Your task to perform on an android device: Go to network settings Image 0: 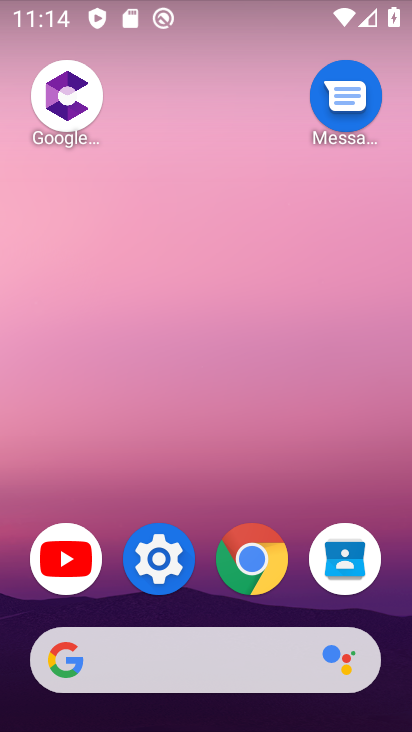
Step 0: click (158, 566)
Your task to perform on an android device: Go to network settings Image 1: 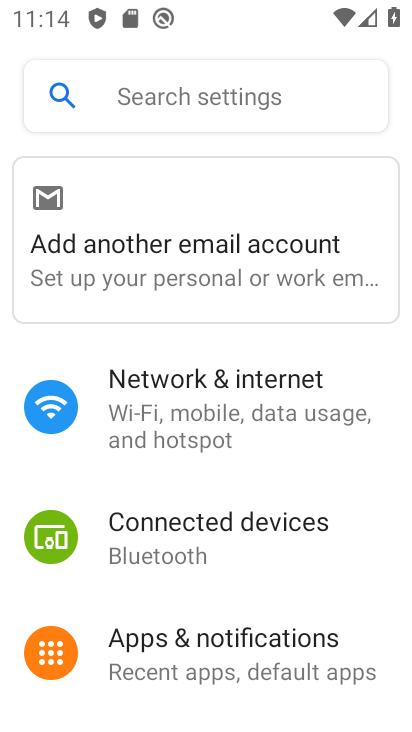
Step 1: click (160, 390)
Your task to perform on an android device: Go to network settings Image 2: 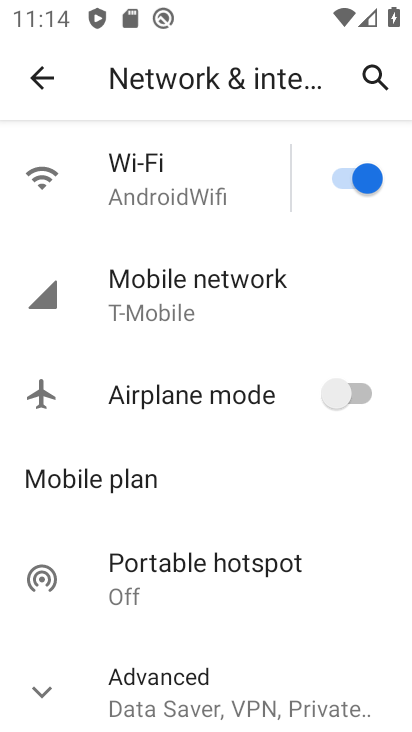
Step 2: task complete